Your task to perform on an android device: Open location settings Image 0: 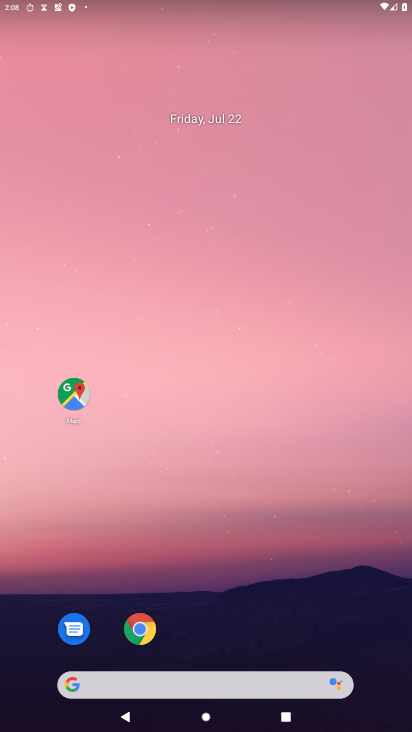
Step 0: drag from (137, 629) to (121, 84)
Your task to perform on an android device: Open location settings Image 1: 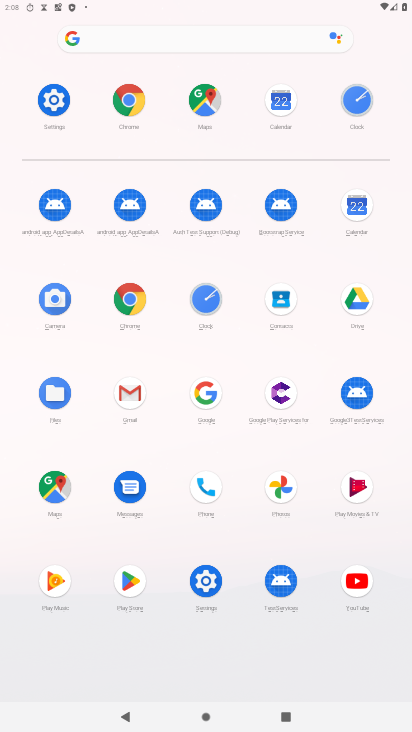
Step 1: click (64, 106)
Your task to perform on an android device: Open location settings Image 2: 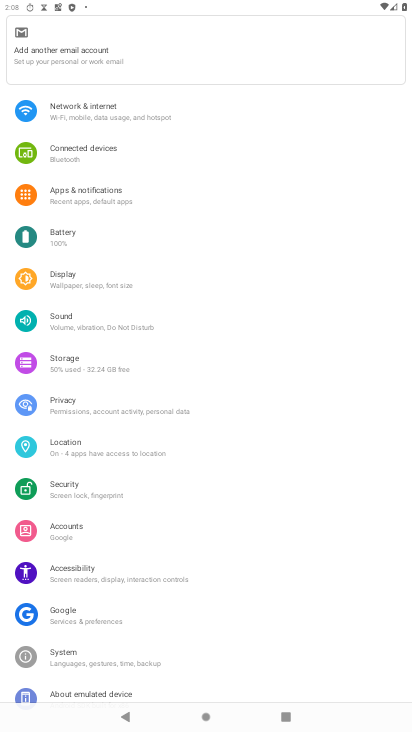
Step 2: click (79, 456)
Your task to perform on an android device: Open location settings Image 3: 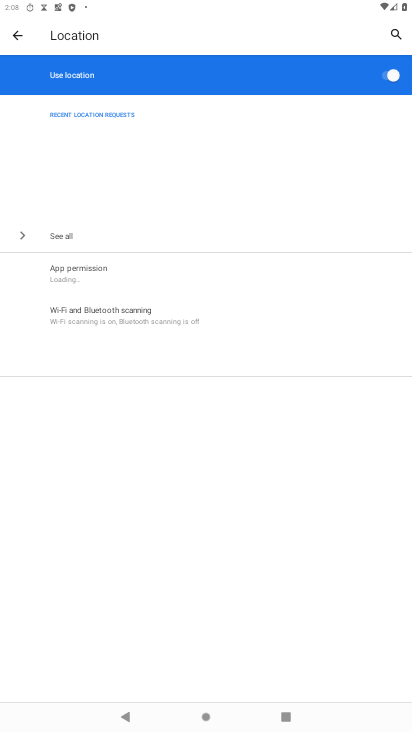
Step 3: task complete